Your task to perform on an android device: Search for Italian restaurants on Maps Image 0: 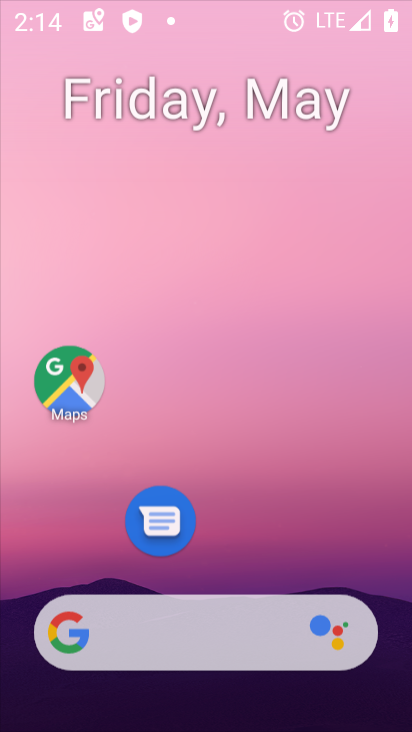
Step 0: click (196, 122)
Your task to perform on an android device: Search for Italian restaurants on Maps Image 1: 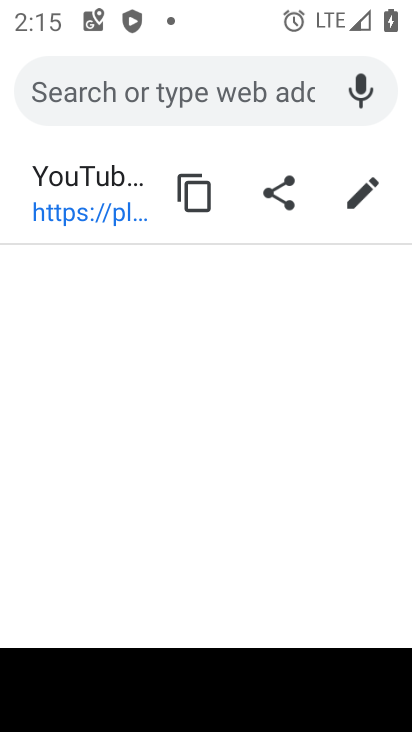
Step 1: press home button
Your task to perform on an android device: Search for Italian restaurants on Maps Image 2: 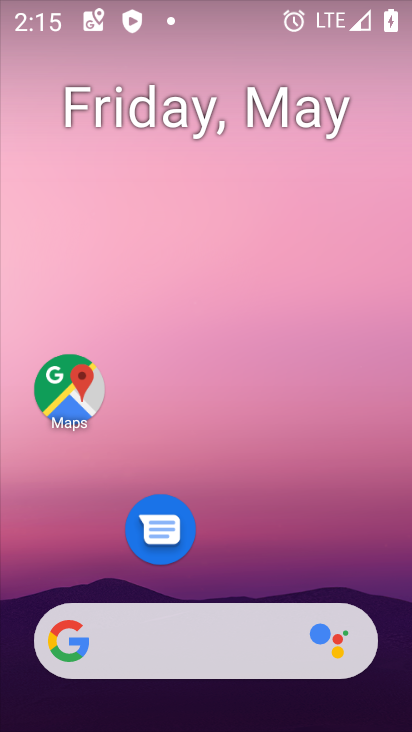
Step 2: drag from (220, 564) to (228, 198)
Your task to perform on an android device: Search for Italian restaurants on Maps Image 3: 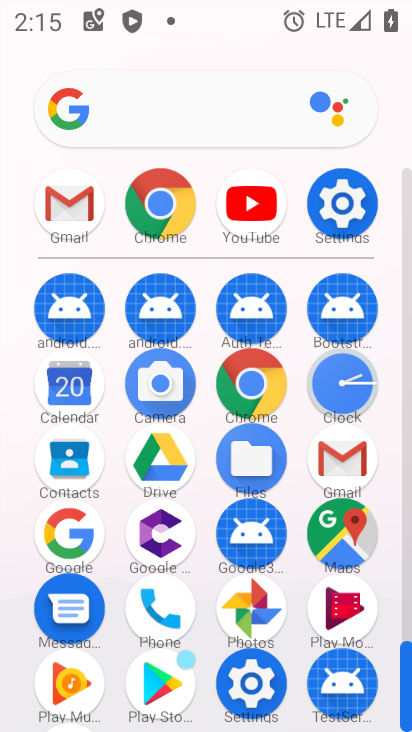
Step 3: click (331, 532)
Your task to perform on an android device: Search for Italian restaurants on Maps Image 4: 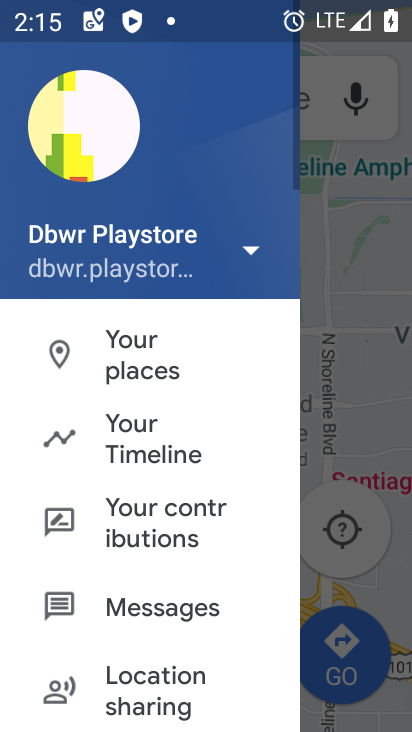
Step 4: drag from (148, 629) to (193, 103)
Your task to perform on an android device: Search for Italian restaurants on Maps Image 5: 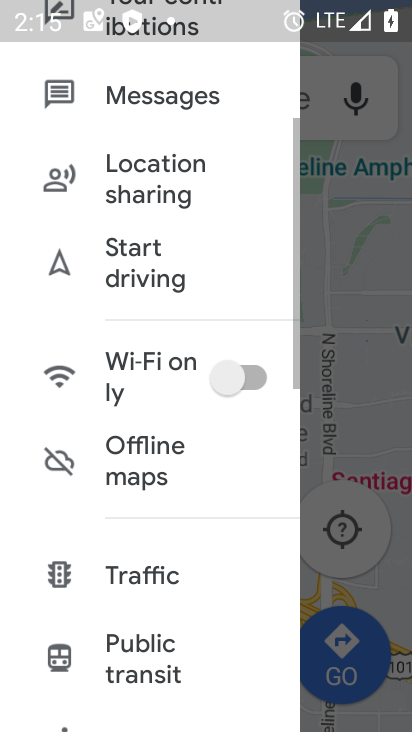
Step 5: drag from (152, 602) to (166, 200)
Your task to perform on an android device: Search for Italian restaurants on Maps Image 6: 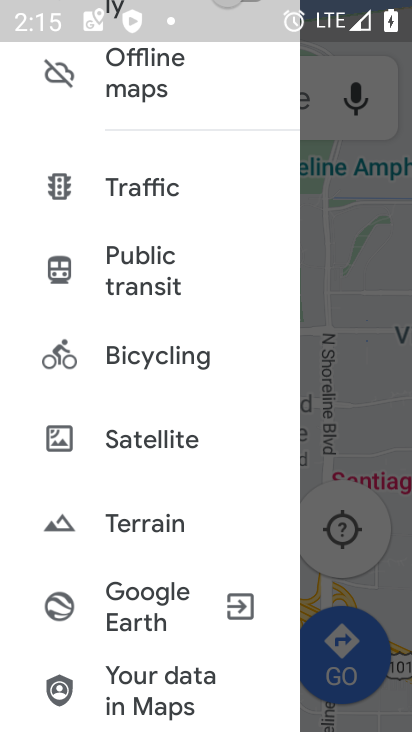
Step 6: drag from (135, 580) to (171, 178)
Your task to perform on an android device: Search for Italian restaurants on Maps Image 7: 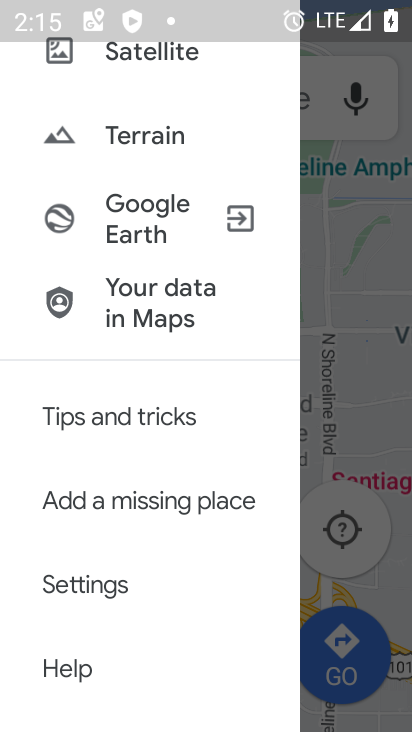
Step 7: click (95, 589)
Your task to perform on an android device: Search for Italian restaurants on Maps Image 8: 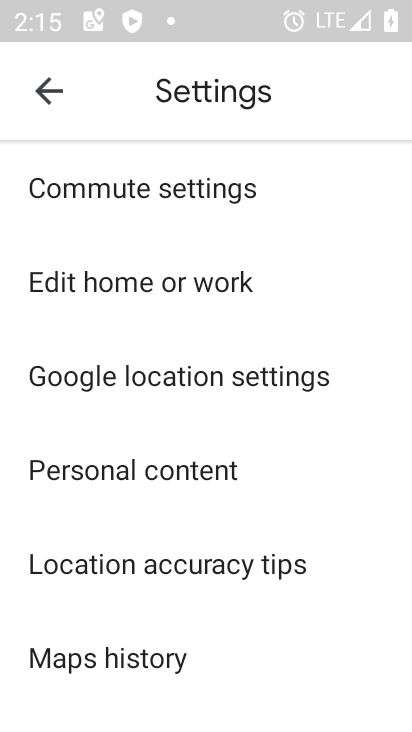
Step 8: click (38, 68)
Your task to perform on an android device: Search for Italian restaurants on Maps Image 9: 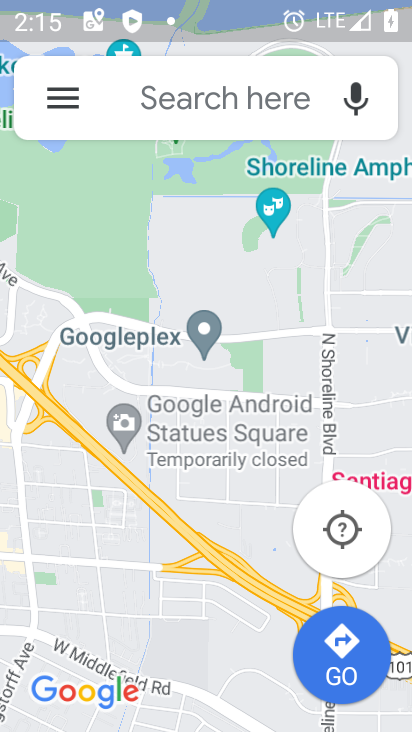
Step 9: click (169, 84)
Your task to perform on an android device: Search for Italian restaurants on Maps Image 10: 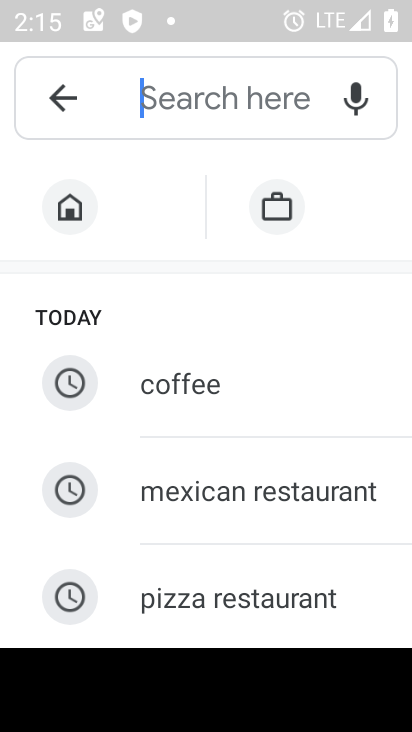
Step 10: drag from (209, 610) to (226, 308)
Your task to perform on an android device: Search for Italian restaurants on Maps Image 11: 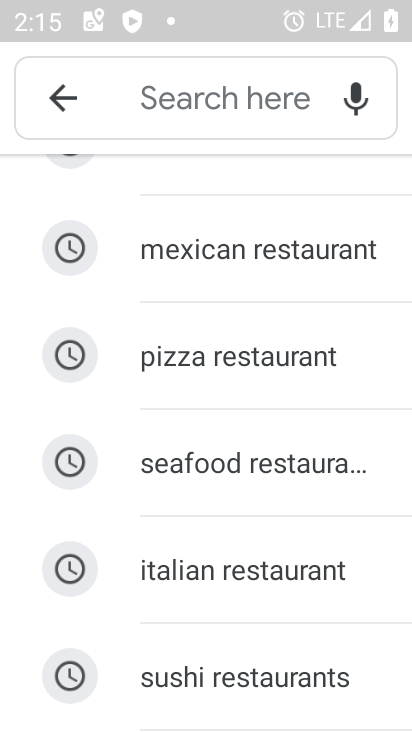
Step 11: click (204, 573)
Your task to perform on an android device: Search for Italian restaurants on Maps Image 12: 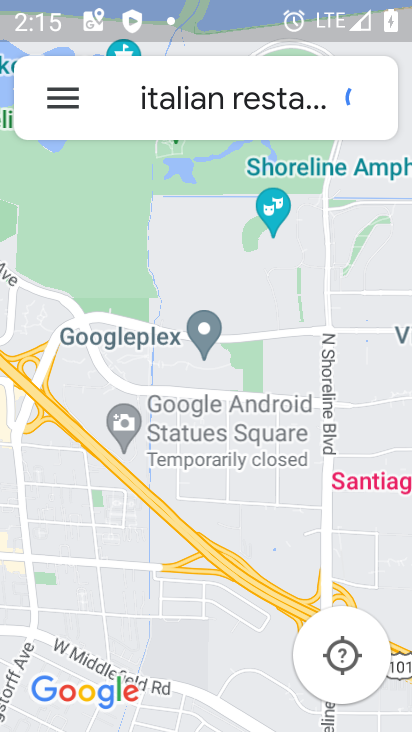
Step 12: task complete